Your task to perform on an android device: open app "Google Drive" (install if not already installed) Image 0: 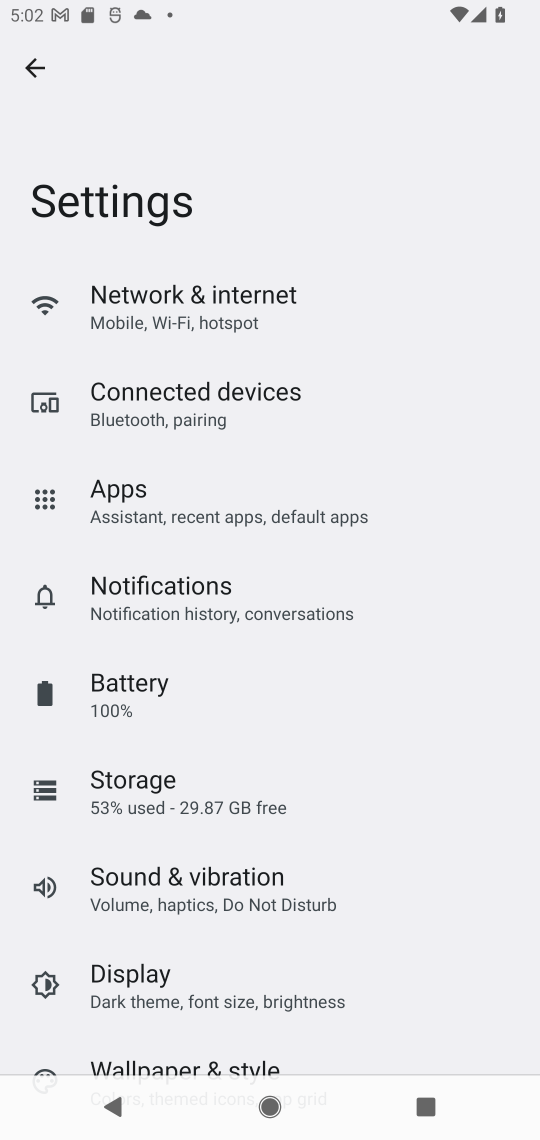
Step 0: press home button
Your task to perform on an android device: open app "Google Drive" (install if not already installed) Image 1: 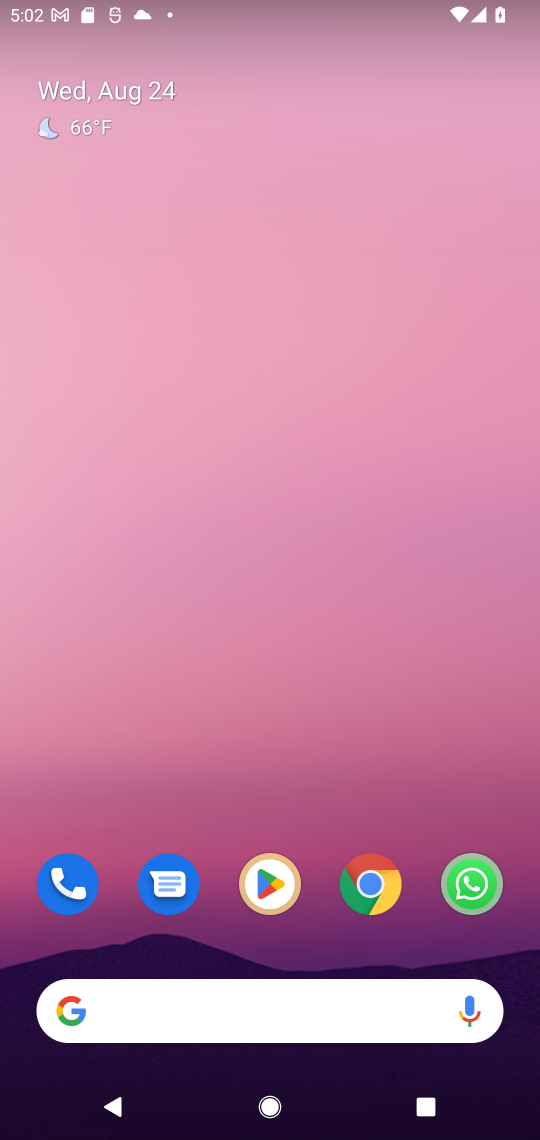
Step 1: click (267, 901)
Your task to perform on an android device: open app "Google Drive" (install if not already installed) Image 2: 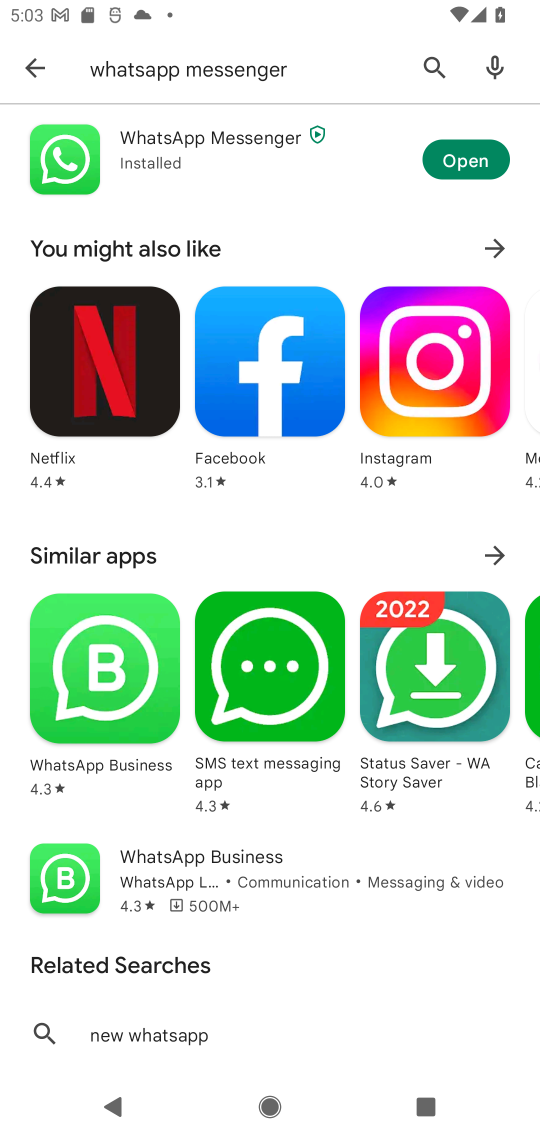
Step 2: click (28, 69)
Your task to perform on an android device: open app "Google Drive" (install if not already installed) Image 3: 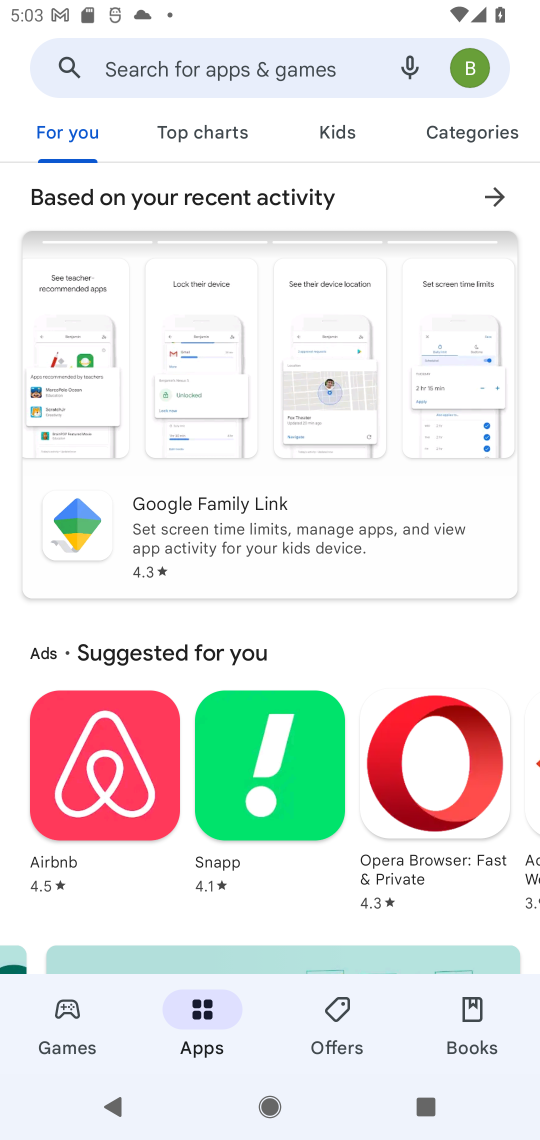
Step 3: click (223, 73)
Your task to perform on an android device: open app "Google Drive" (install if not already installed) Image 4: 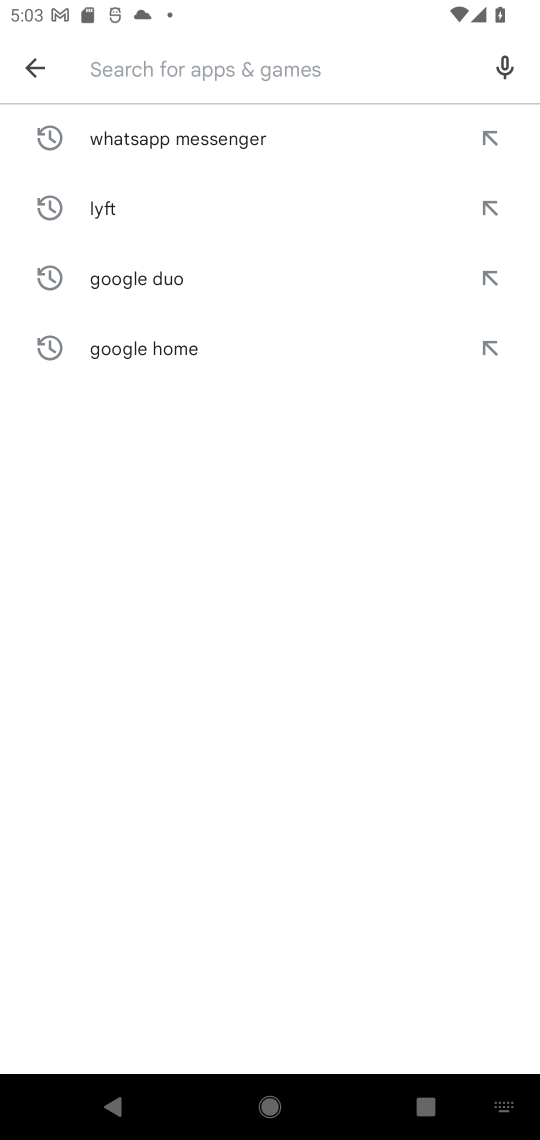
Step 4: type "Google Drive"
Your task to perform on an android device: open app "Google Drive" (install if not already installed) Image 5: 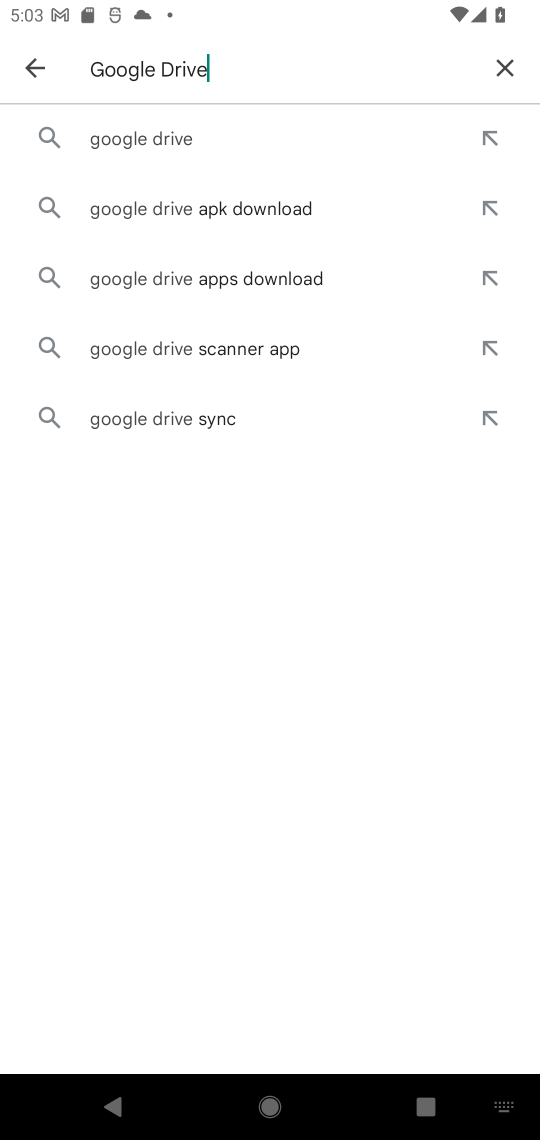
Step 5: click (106, 142)
Your task to perform on an android device: open app "Google Drive" (install if not already installed) Image 6: 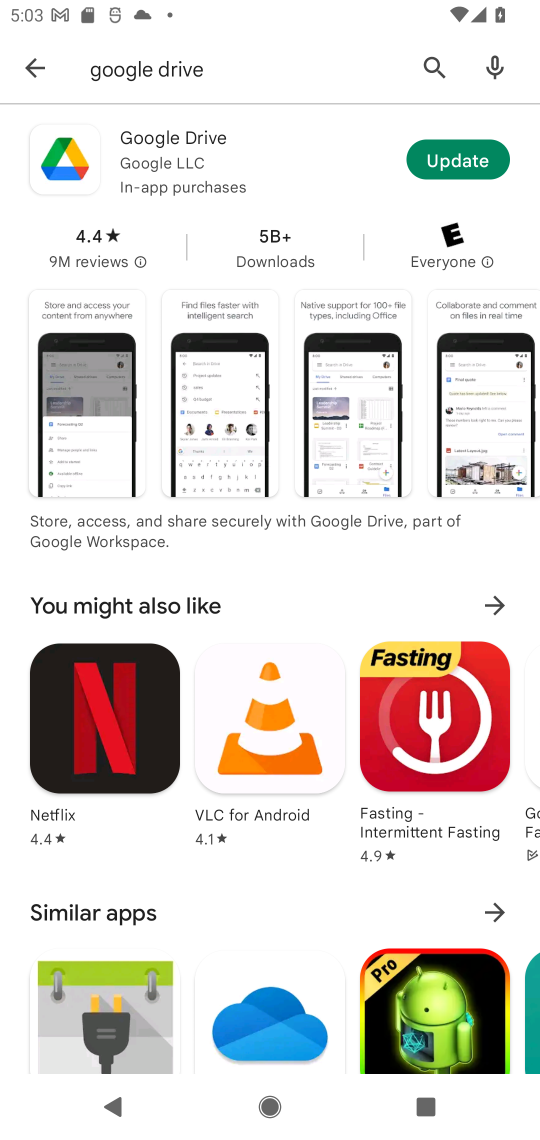
Step 6: click (471, 152)
Your task to perform on an android device: open app "Google Drive" (install if not already installed) Image 7: 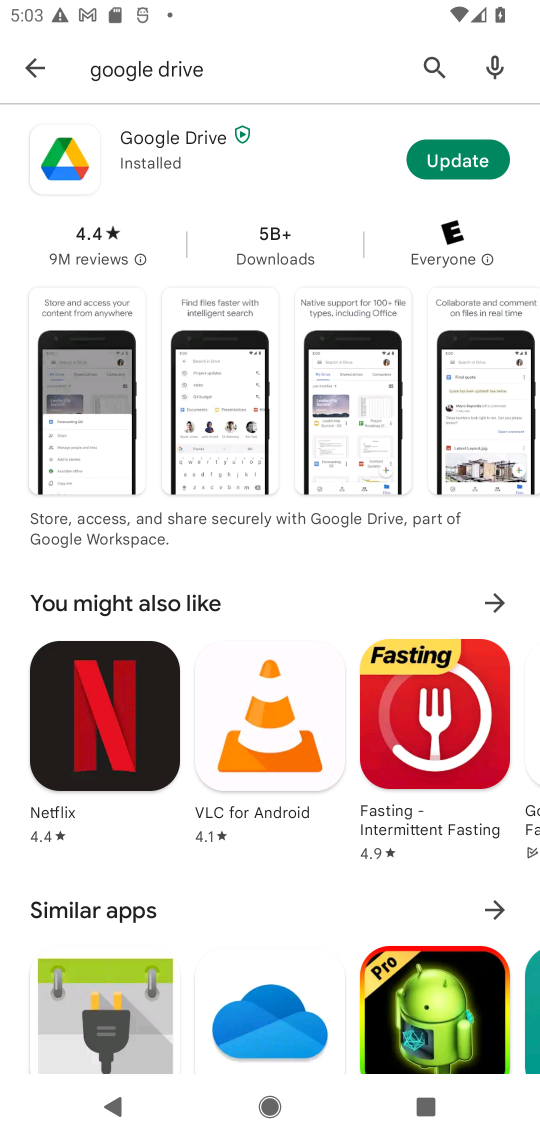
Step 7: click (422, 154)
Your task to perform on an android device: open app "Google Drive" (install if not already installed) Image 8: 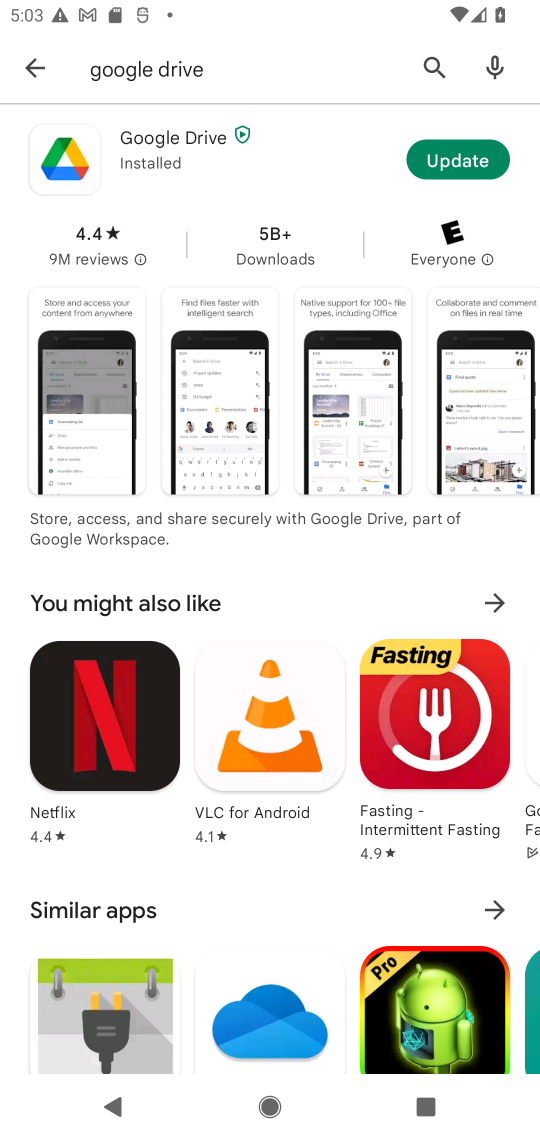
Step 8: task complete